Your task to perform on an android device: remove spam from my inbox in the gmail app Image 0: 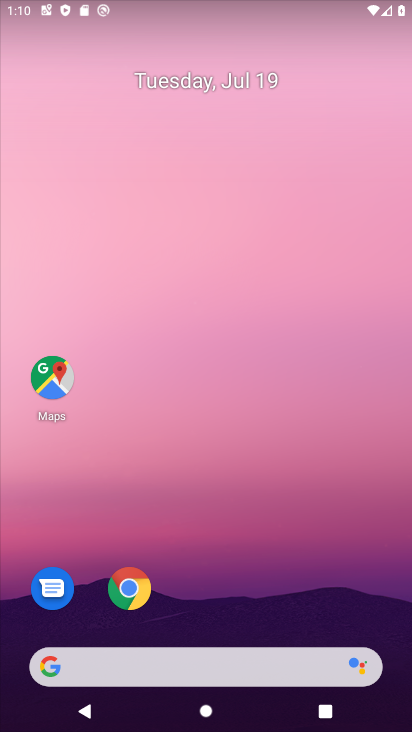
Step 0: drag from (19, 682) to (352, 22)
Your task to perform on an android device: remove spam from my inbox in the gmail app Image 1: 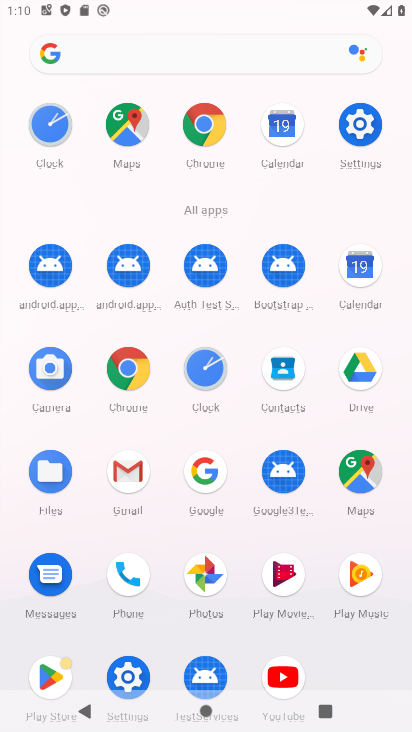
Step 1: click (138, 475)
Your task to perform on an android device: remove spam from my inbox in the gmail app Image 2: 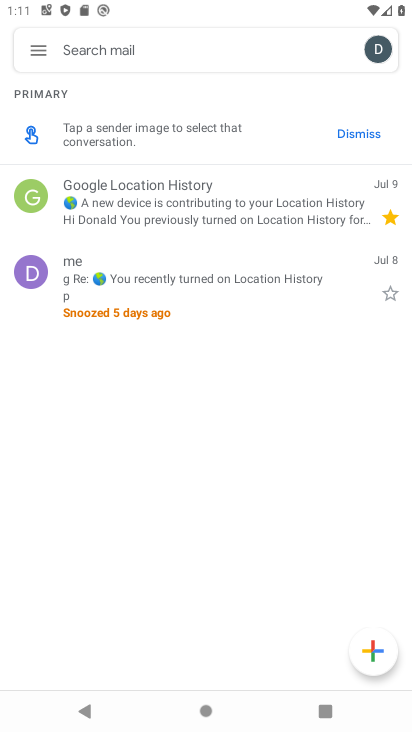
Step 2: click (28, 47)
Your task to perform on an android device: remove spam from my inbox in the gmail app Image 3: 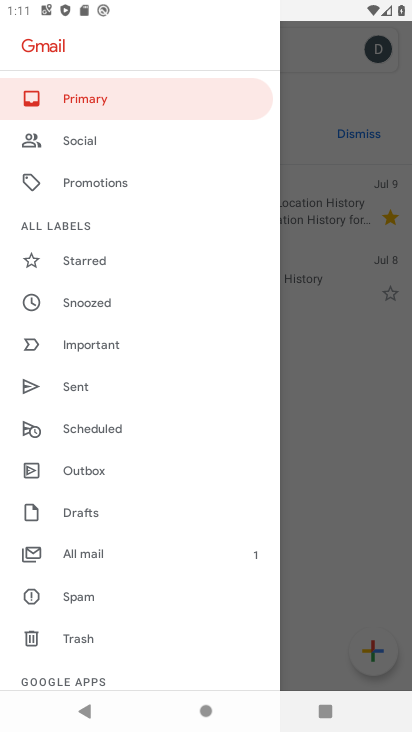
Step 3: click (84, 599)
Your task to perform on an android device: remove spam from my inbox in the gmail app Image 4: 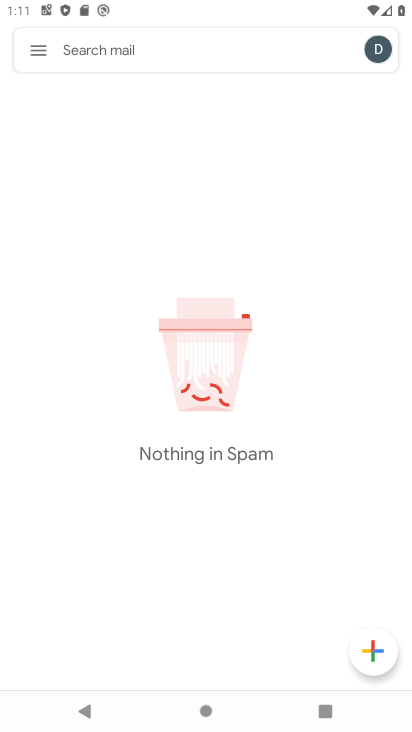
Step 4: task complete